Your task to perform on an android device: Go to Android settings Image 0: 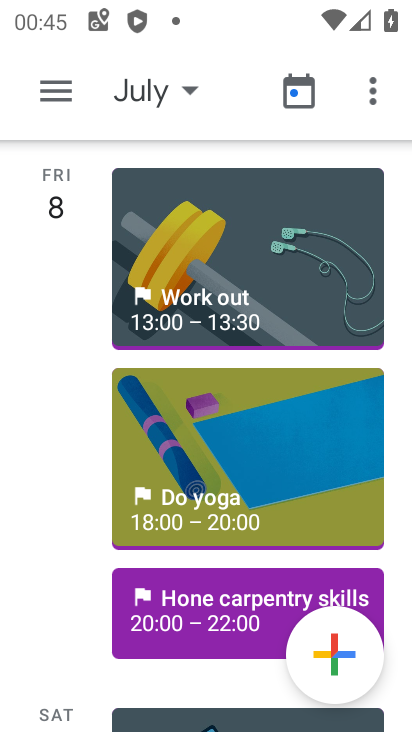
Step 0: press home button
Your task to perform on an android device: Go to Android settings Image 1: 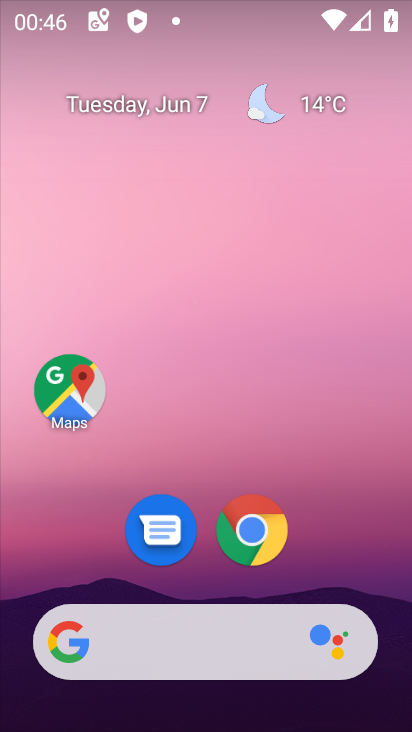
Step 1: drag from (295, 575) to (291, 198)
Your task to perform on an android device: Go to Android settings Image 2: 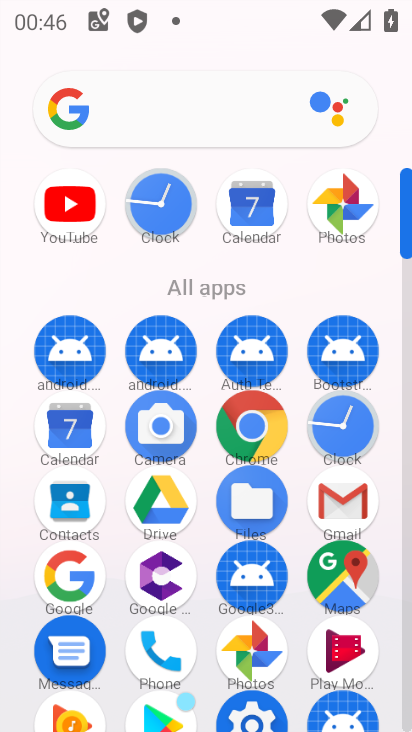
Step 2: click (255, 710)
Your task to perform on an android device: Go to Android settings Image 3: 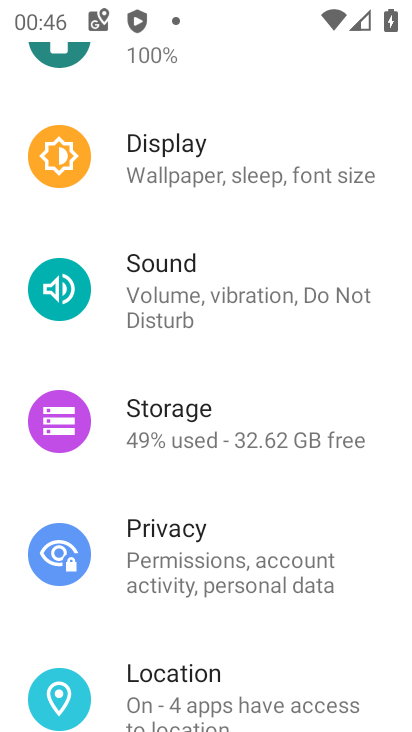
Step 3: task complete